Your task to perform on an android device: How do I get to the nearest JCPenney? Image 0: 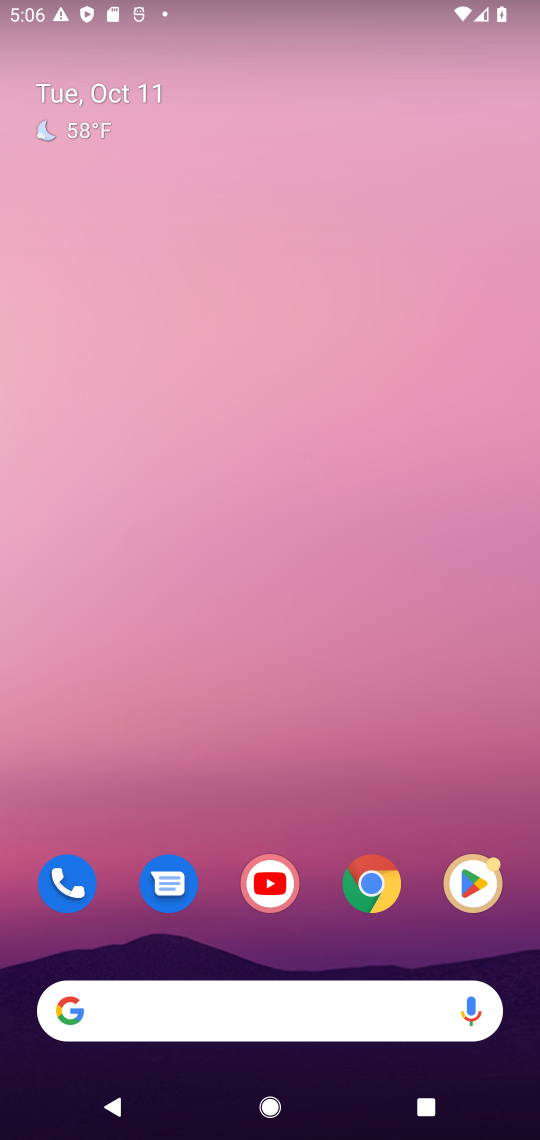
Step 0: drag from (322, 945) to (260, 52)
Your task to perform on an android device: How do I get to the nearest JCPenney? Image 1: 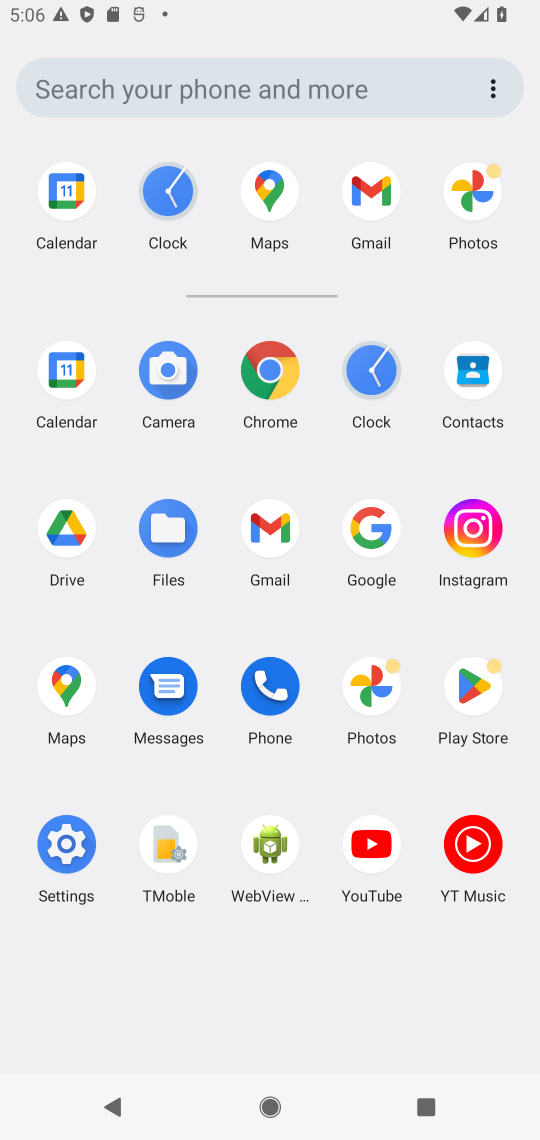
Step 1: click (270, 373)
Your task to perform on an android device: How do I get to the nearest JCPenney? Image 2: 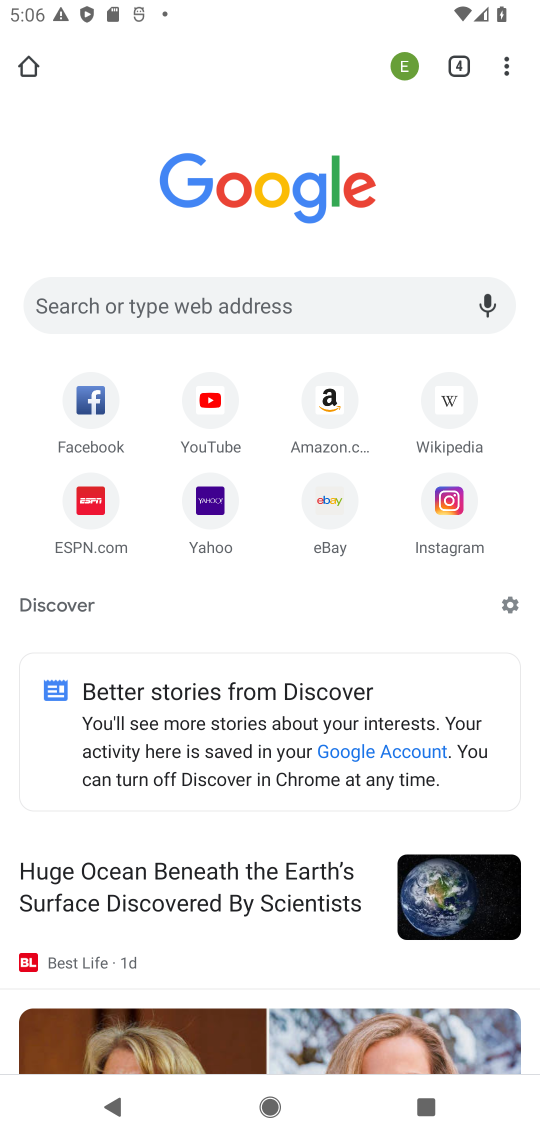
Step 2: click (248, 314)
Your task to perform on an android device: How do I get to the nearest JCPenney? Image 3: 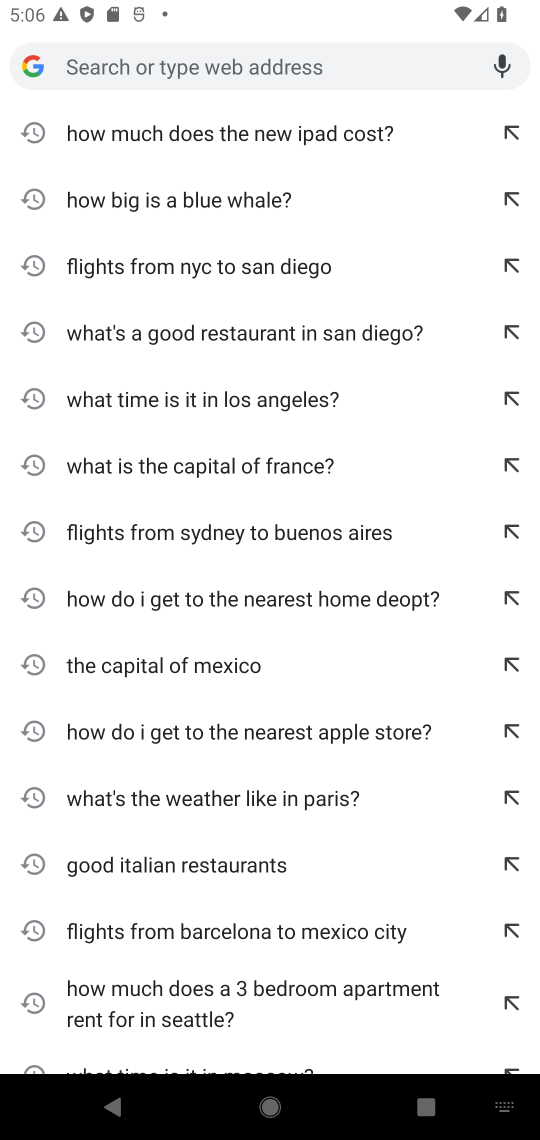
Step 3: type "How do I get to the nearest JCPenney?"
Your task to perform on an android device: How do I get to the nearest JCPenney? Image 4: 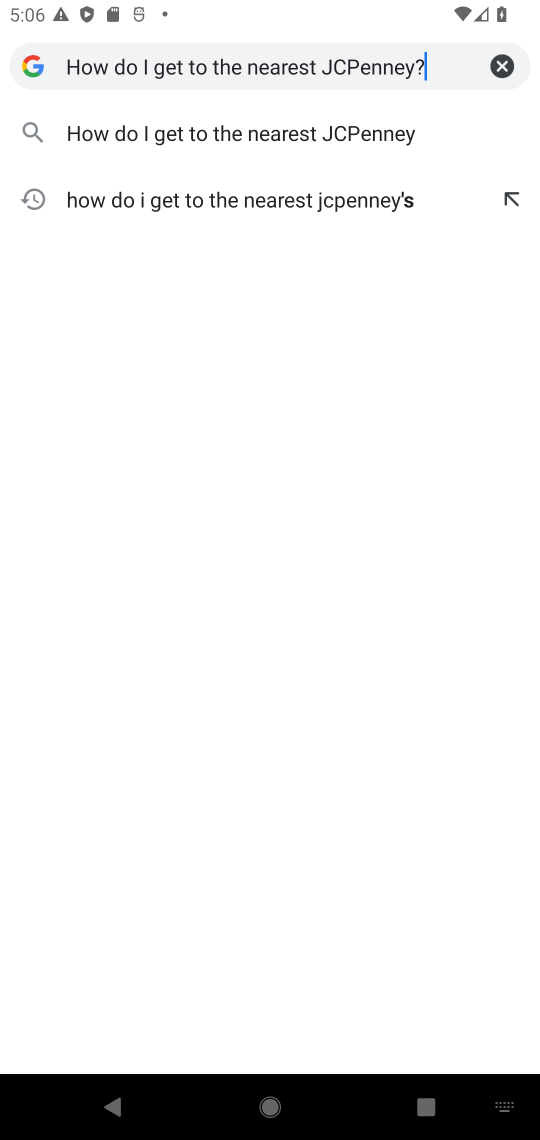
Step 4: press enter
Your task to perform on an android device: How do I get to the nearest JCPenney? Image 5: 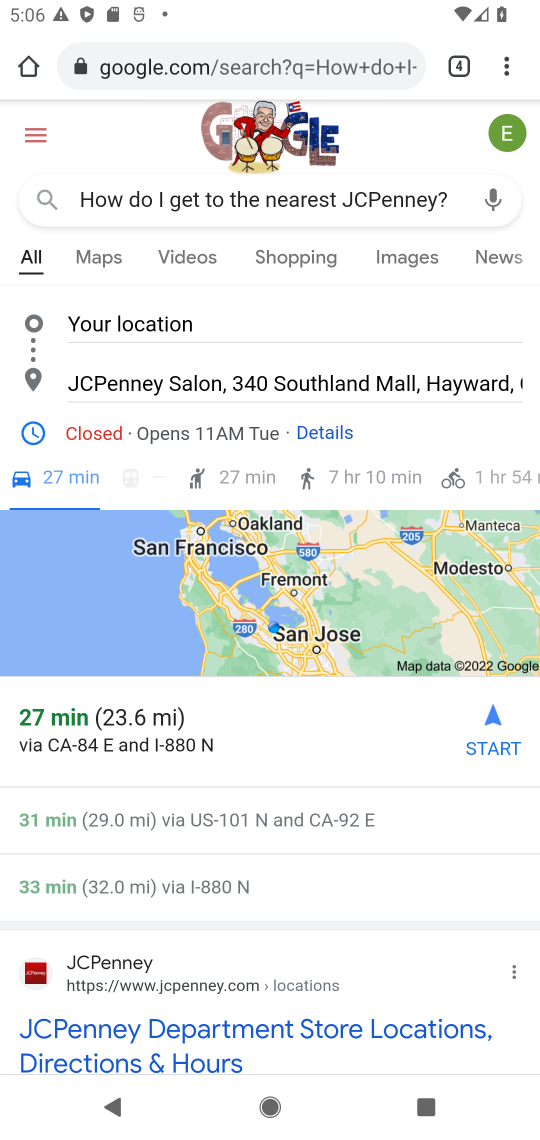
Step 5: task complete